Your task to perform on an android device: Open Google Chrome and click the shortcut for Amazon.com Image 0: 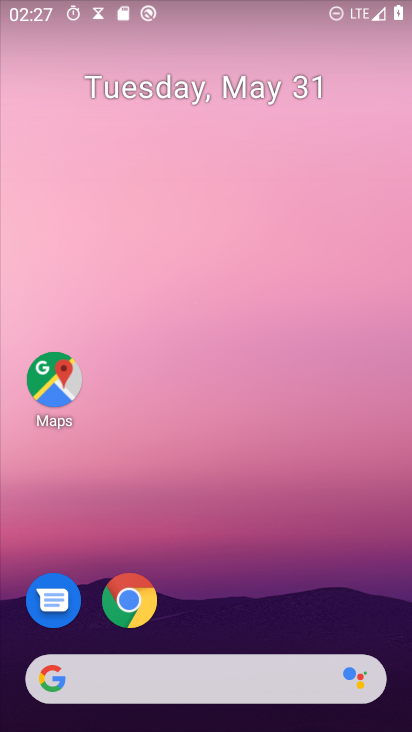
Step 0: click (131, 606)
Your task to perform on an android device: Open Google Chrome and click the shortcut for Amazon.com Image 1: 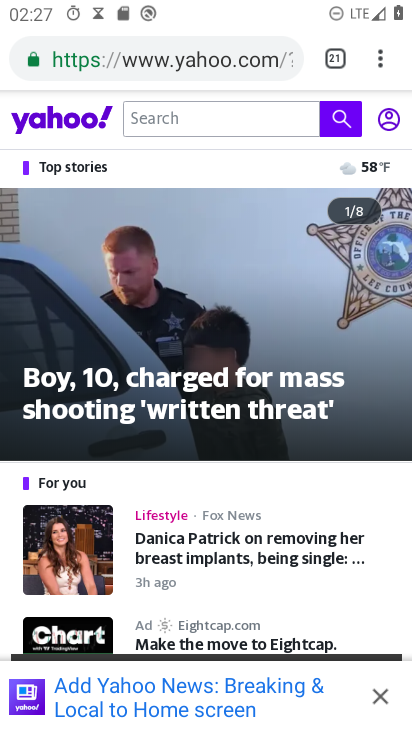
Step 1: click (382, 64)
Your task to perform on an android device: Open Google Chrome and click the shortcut for Amazon.com Image 2: 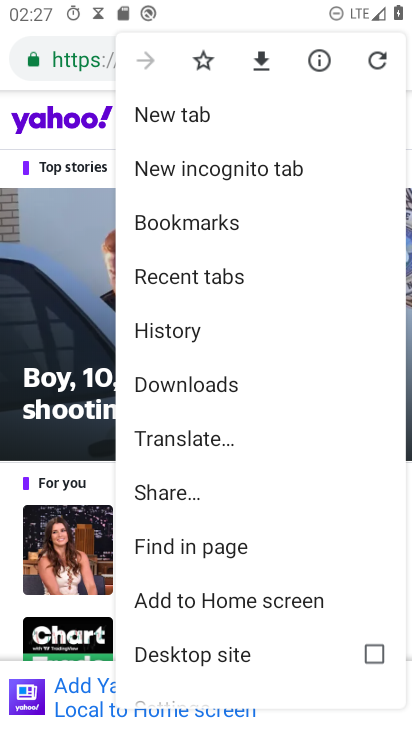
Step 2: click (199, 117)
Your task to perform on an android device: Open Google Chrome and click the shortcut for Amazon.com Image 3: 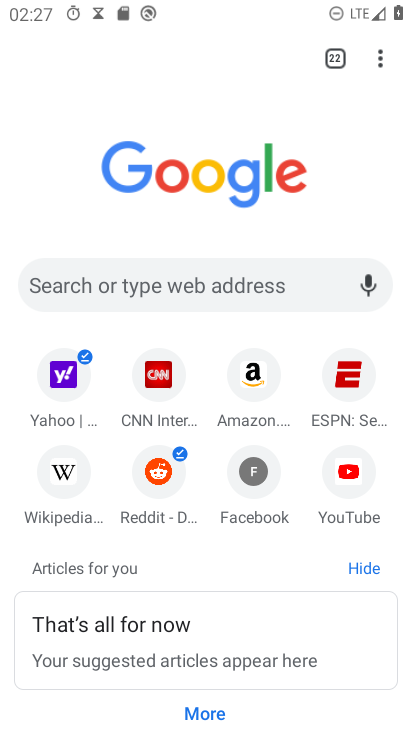
Step 3: click (251, 380)
Your task to perform on an android device: Open Google Chrome and click the shortcut for Amazon.com Image 4: 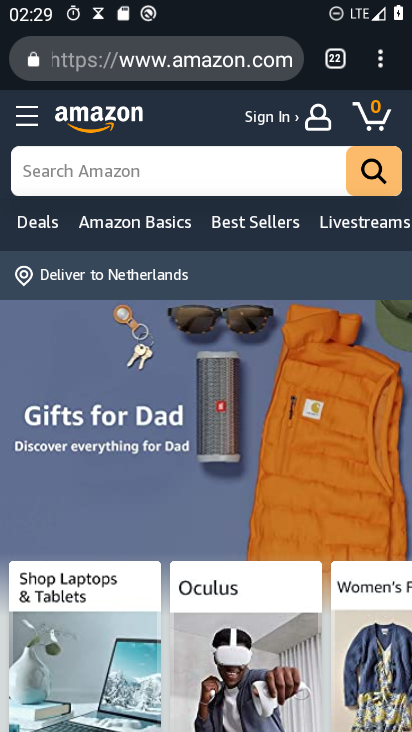
Step 4: task complete